Your task to perform on an android device: Open Google Maps Image 0: 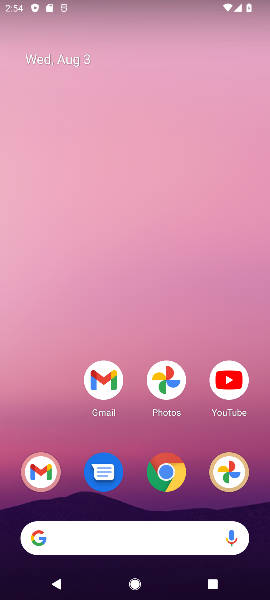
Step 0: drag from (198, 456) to (107, 75)
Your task to perform on an android device: Open Google Maps Image 1: 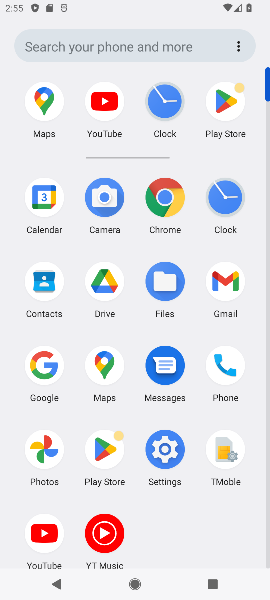
Step 1: click (102, 358)
Your task to perform on an android device: Open Google Maps Image 2: 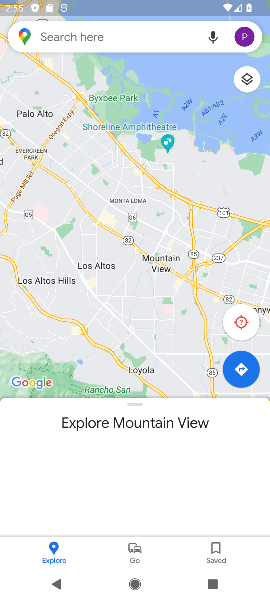
Step 2: task complete